Your task to perform on an android device: Go to calendar. Show me events next week Image 0: 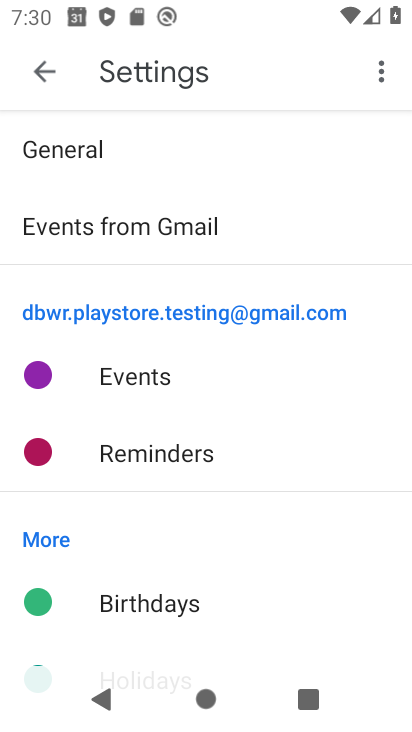
Step 0: press home button
Your task to perform on an android device: Go to calendar. Show me events next week Image 1: 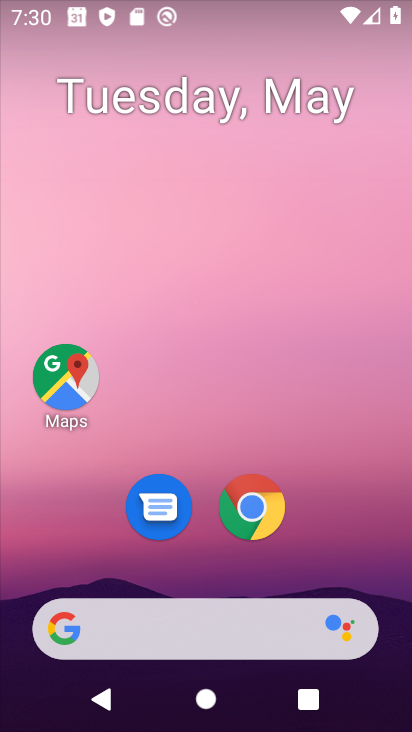
Step 1: drag from (308, 575) to (366, 43)
Your task to perform on an android device: Go to calendar. Show me events next week Image 2: 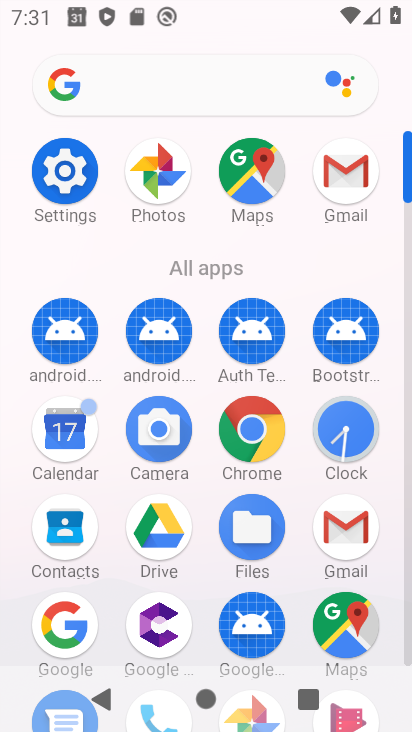
Step 2: click (66, 436)
Your task to perform on an android device: Go to calendar. Show me events next week Image 3: 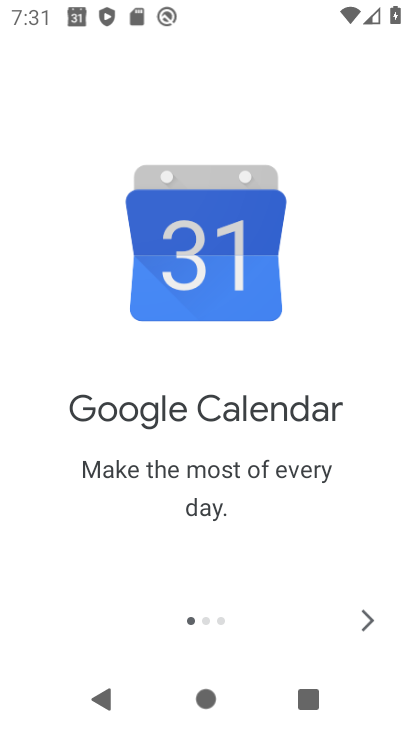
Step 3: click (379, 616)
Your task to perform on an android device: Go to calendar. Show me events next week Image 4: 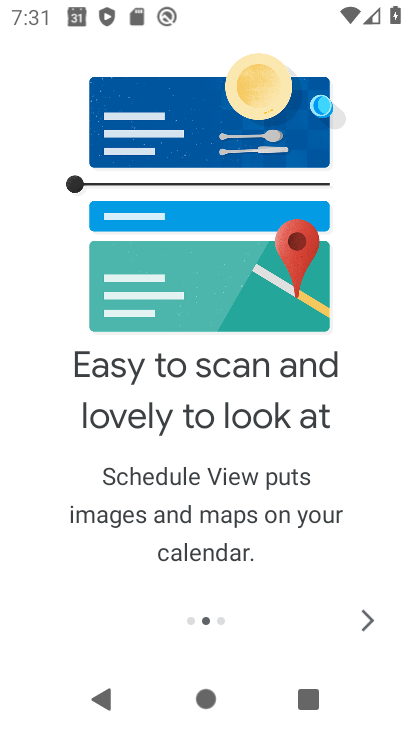
Step 4: click (378, 616)
Your task to perform on an android device: Go to calendar. Show me events next week Image 5: 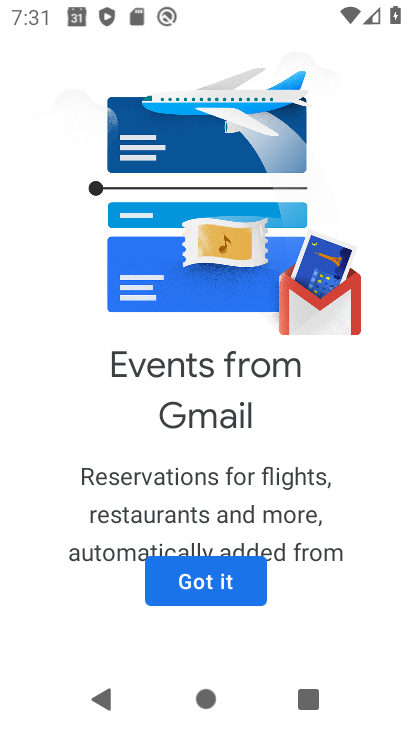
Step 5: click (229, 581)
Your task to perform on an android device: Go to calendar. Show me events next week Image 6: 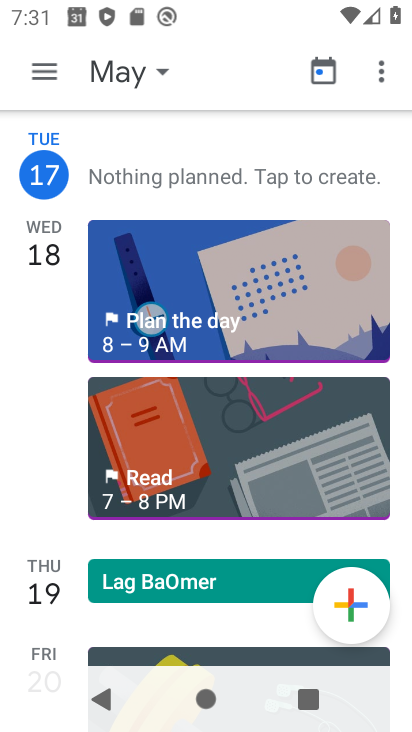
Step 6: click (141, 81)
Your task to perform on an android device: Go to calendar. Show me events next week Image 7: 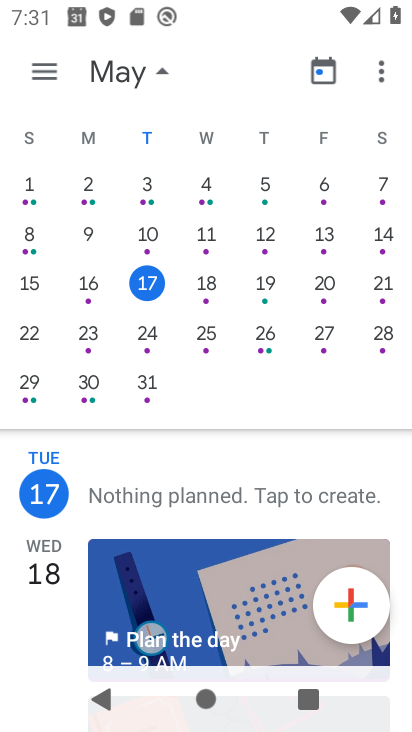
Step 7: click (31, 338)
Your task to perform on an android device: Go to calendar. Show me events next week Image 8: 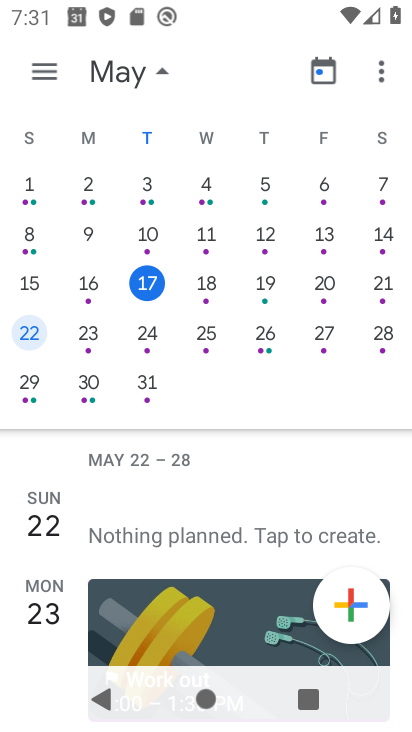
Step 8: task complete